Your task to perform on an android device: Open Reddit.com Image 0: 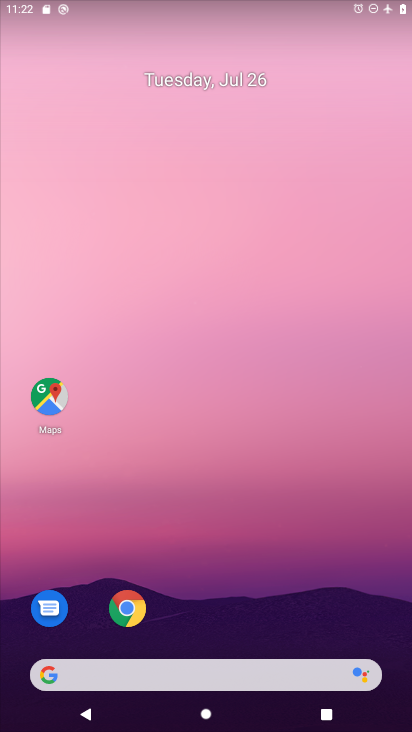
Step 0: drag from (329, 566) to (274, 0)
Your task to perform on an android device: Open Reddit.com Image 1: 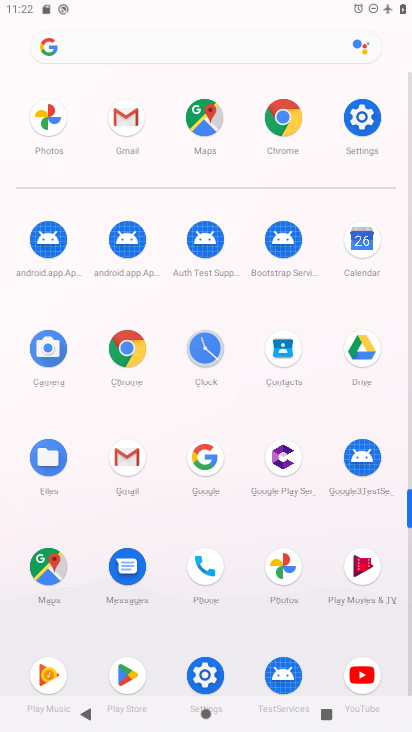
Step 1: click (282, 114)
Your task to perform on an android device: Open Reddit.com Image 2: 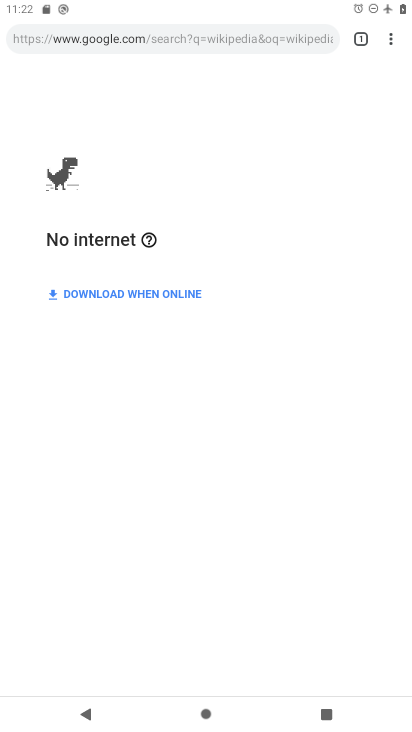
Step 2: click (233, 35)
Your task to perform on an android device: Open Reddit.com Image 3: 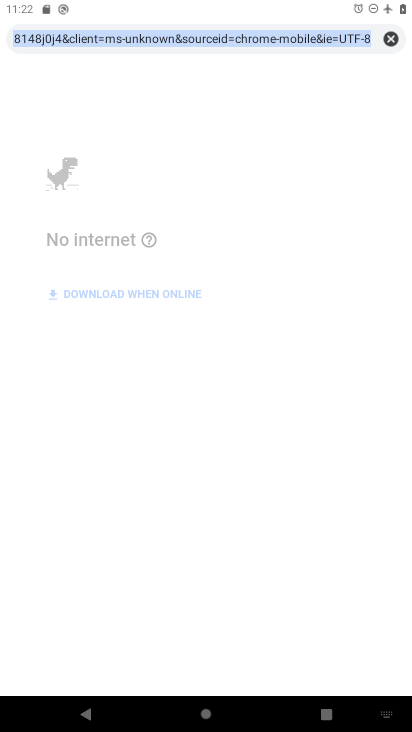
Step 3: type "reddit.com"
Your task to perform on an android device: Open Reddit.com Image 4: 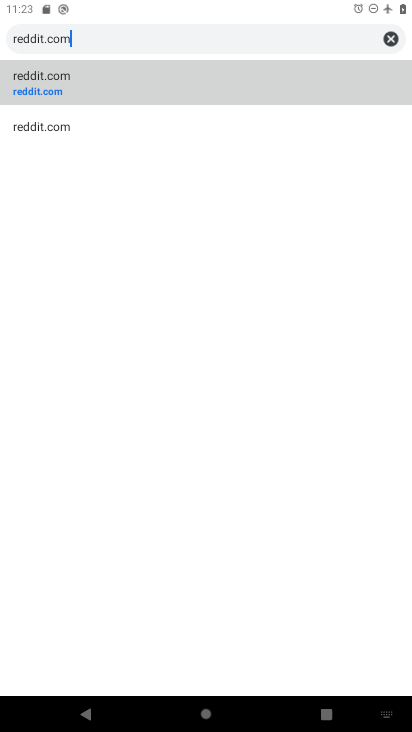
Step 4: click (55, 77)
Your task to perform on an android device: Open Reddit.com Image 5: 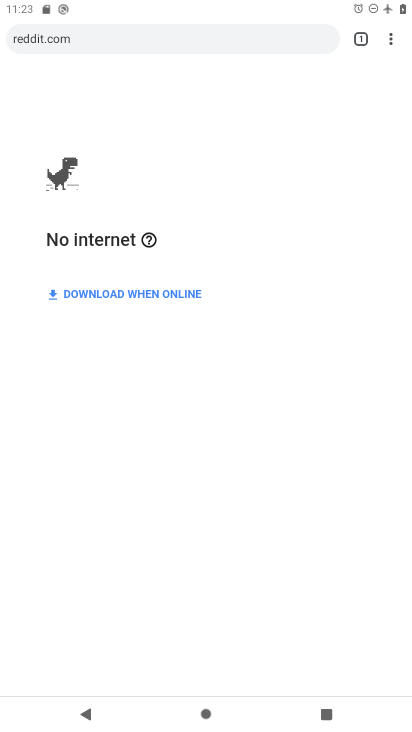
Step 5: task complete